Your task to perform on an android device: Open Google Image 0: 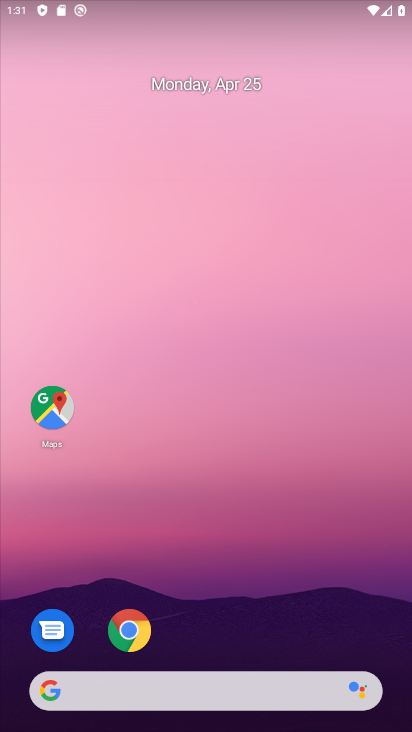
Step 0: drag from (310, 401) to (345, 6)
Your task to perform on an android device: Open Google Image 1: 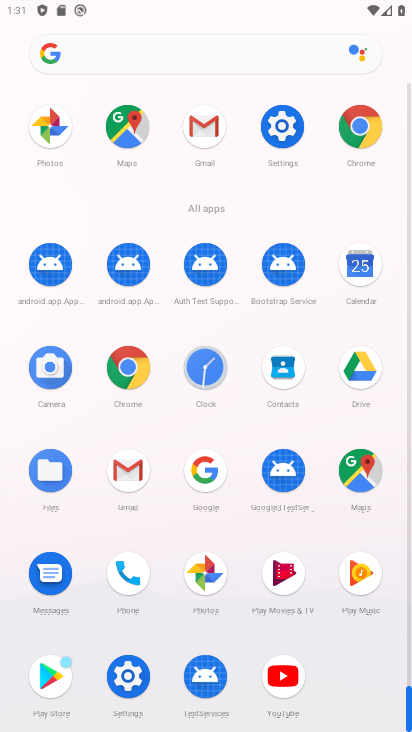
Step 1: click (204, 471)
Your task to perform on an android device: Open Google Image 2: 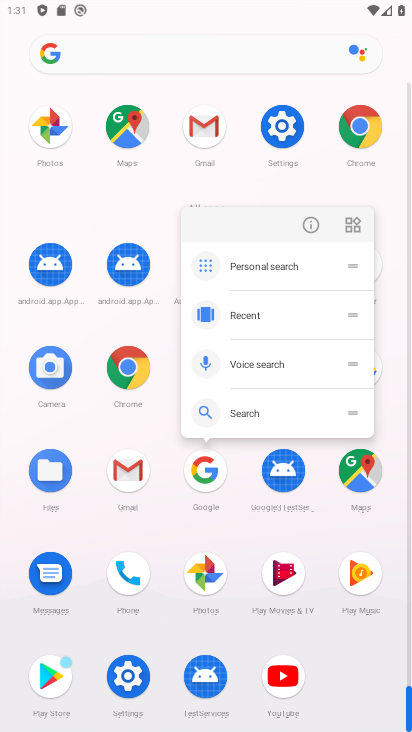
Step 2: click (203, 471)
Your task to perform on an android device: Open Google Image 3: 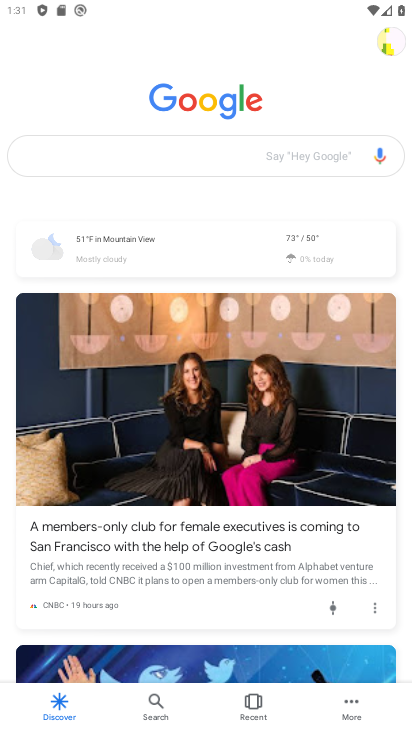
Step 3: task complete